Your task to perform on an android device: open app "Cash App" (install if not already installed) and go to login screen Image 0: 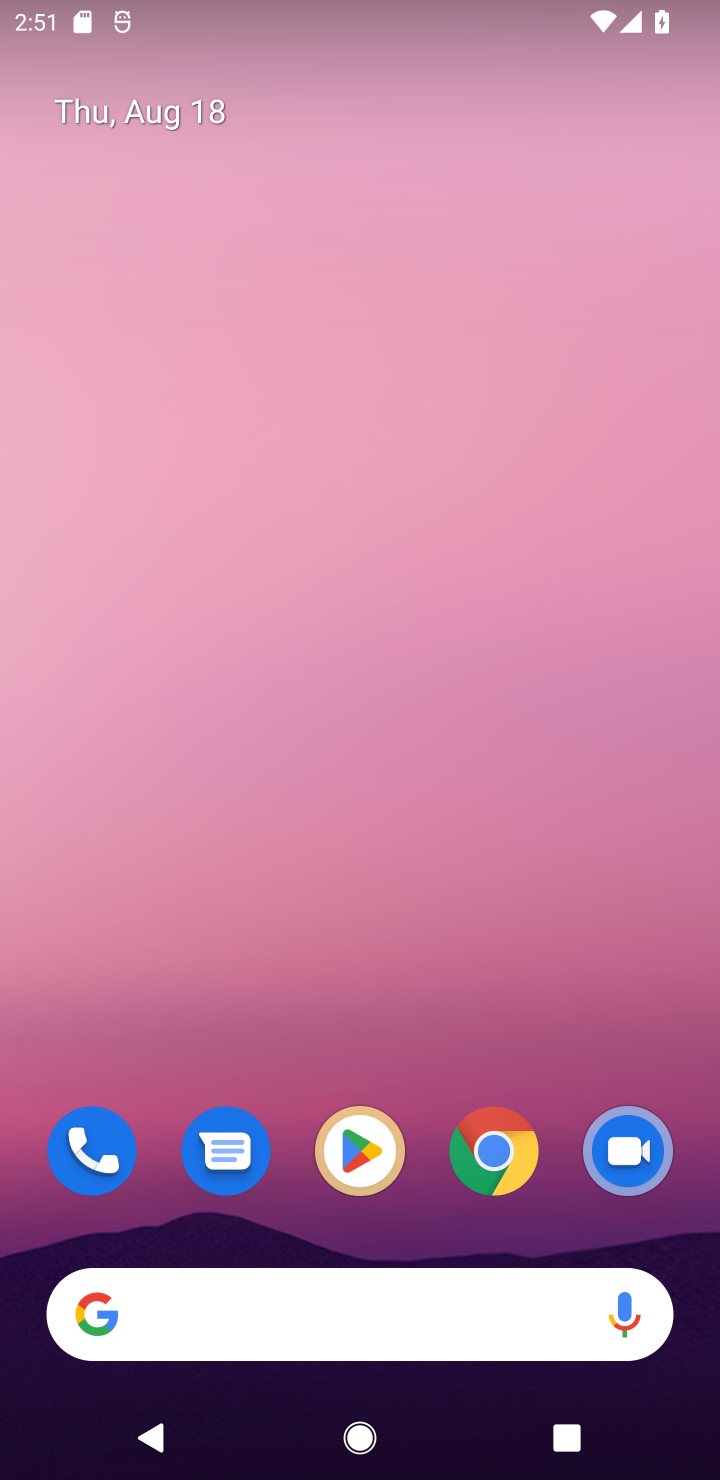
Step 0: click (379, 1156)
Your task to perform on an android device: open app "Cash App" (install if not already installed) and go to login screen Image 1: 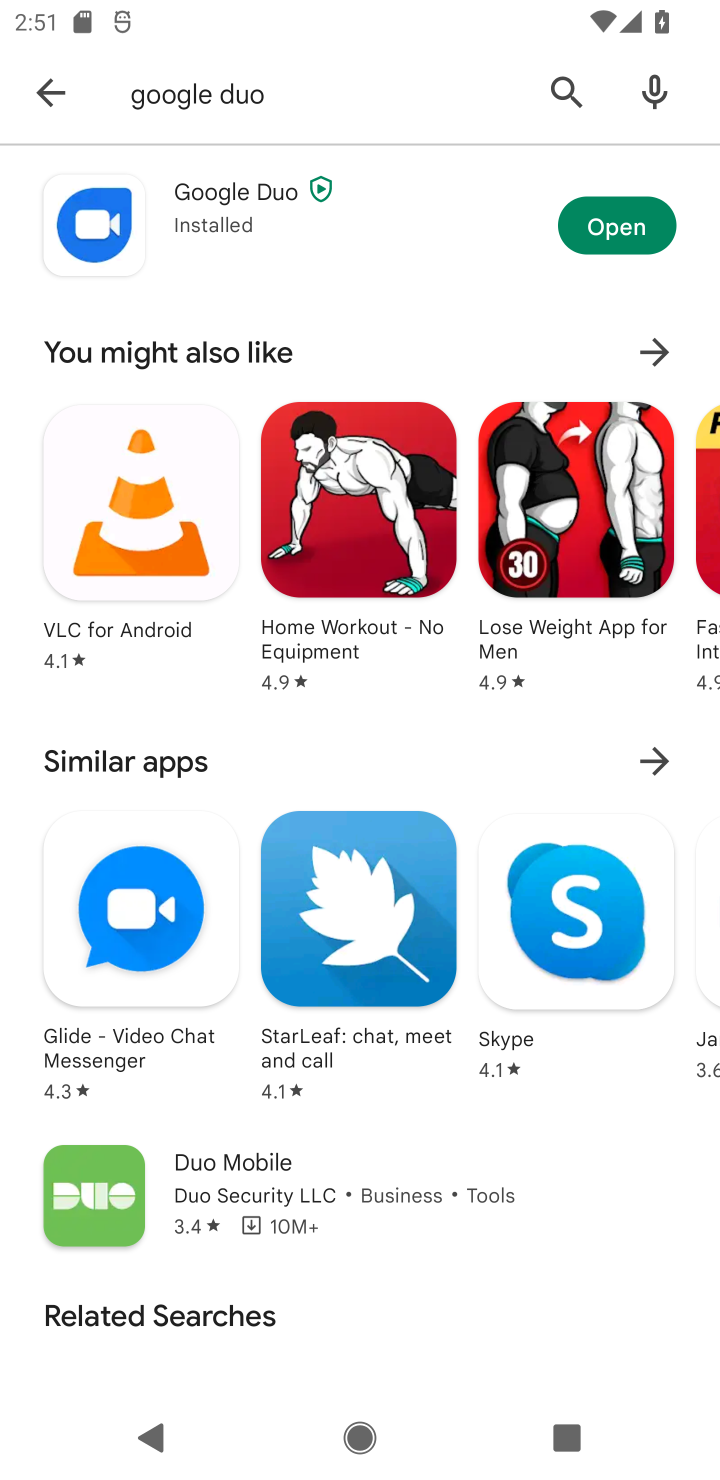
Step 1: click (574, 93)
Your task to perform on an android device: open app "Cash App" (install if not already installed) and go to login screen Image 2: 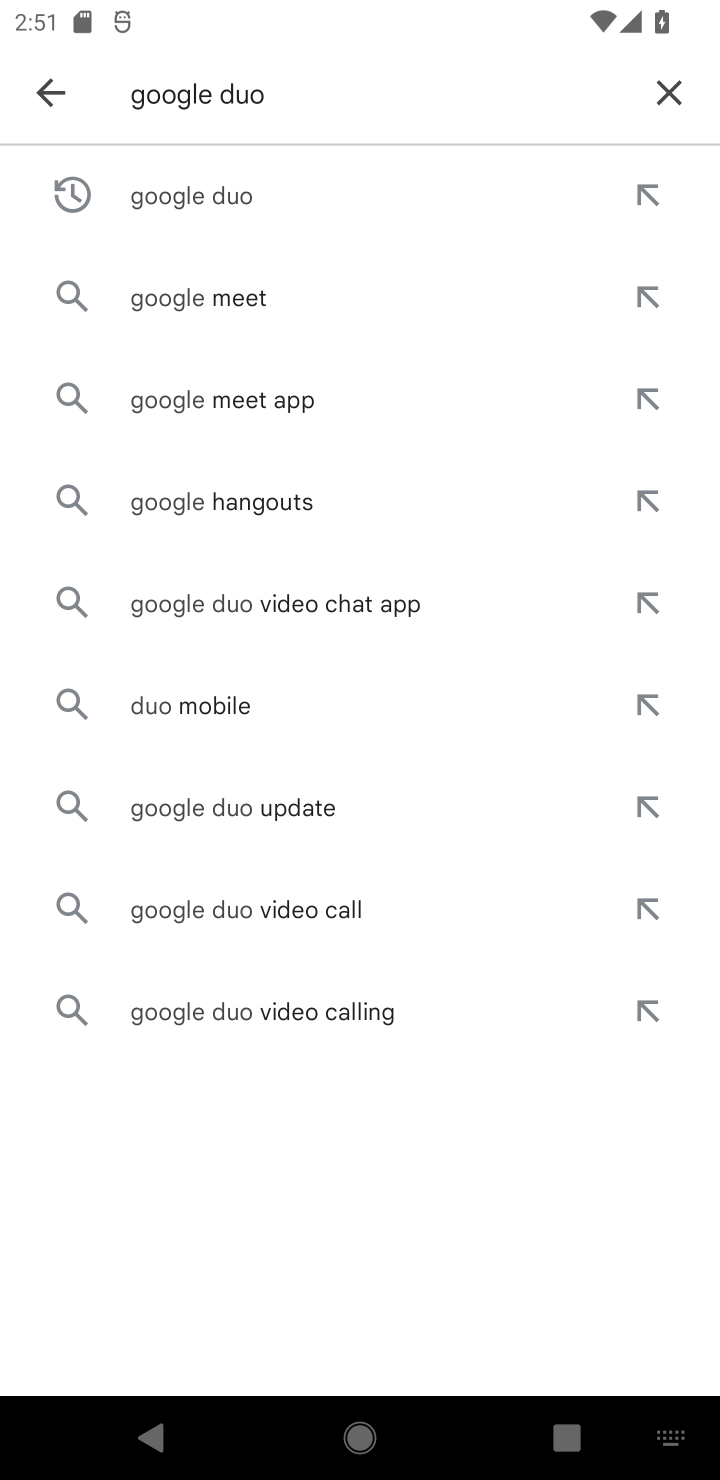
Step 2: click (659, 85)
Your task to perform on an android device: open app "Cash App" (install if not already installed) and go to login screen Image 3: 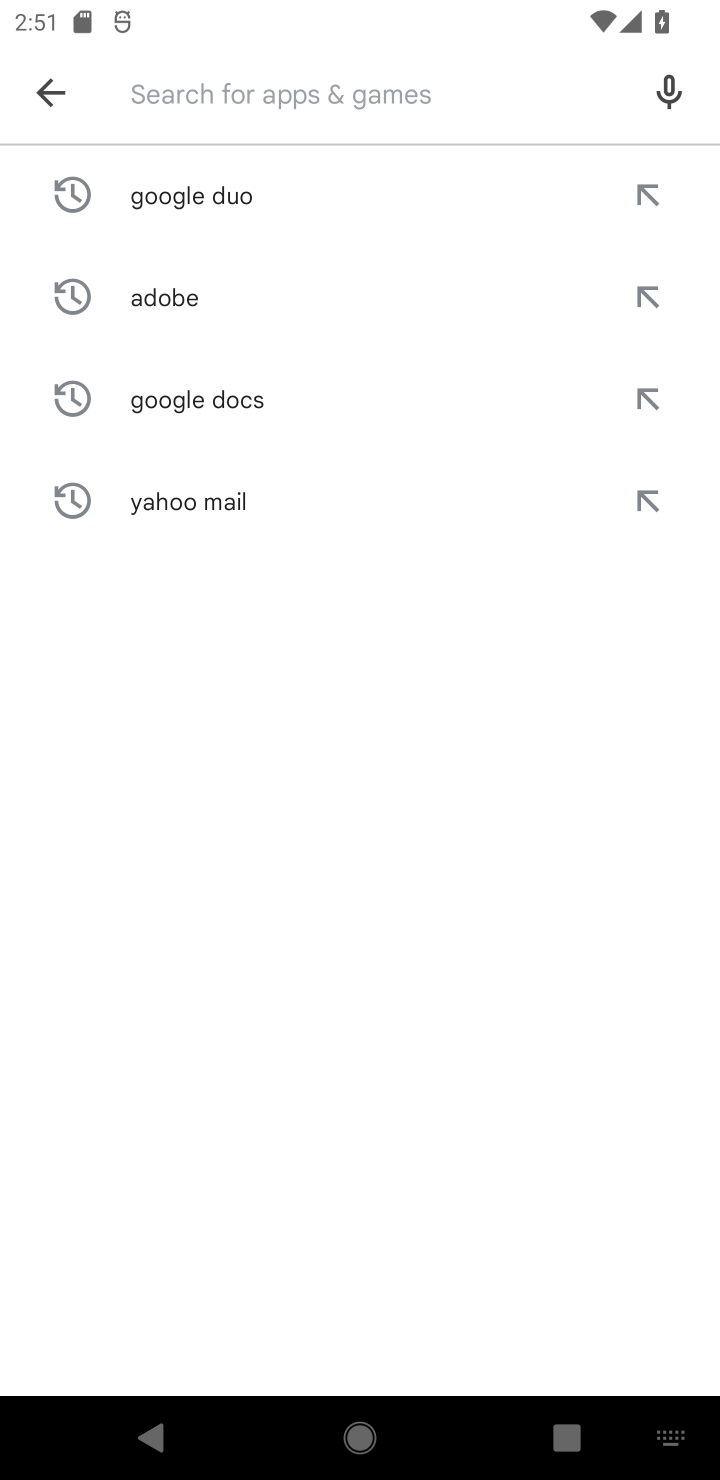
Step 3: type "cash App"
Your task to perform on an android device: open app "Cash App" (install if not already installed) and go to login screen Image 4: 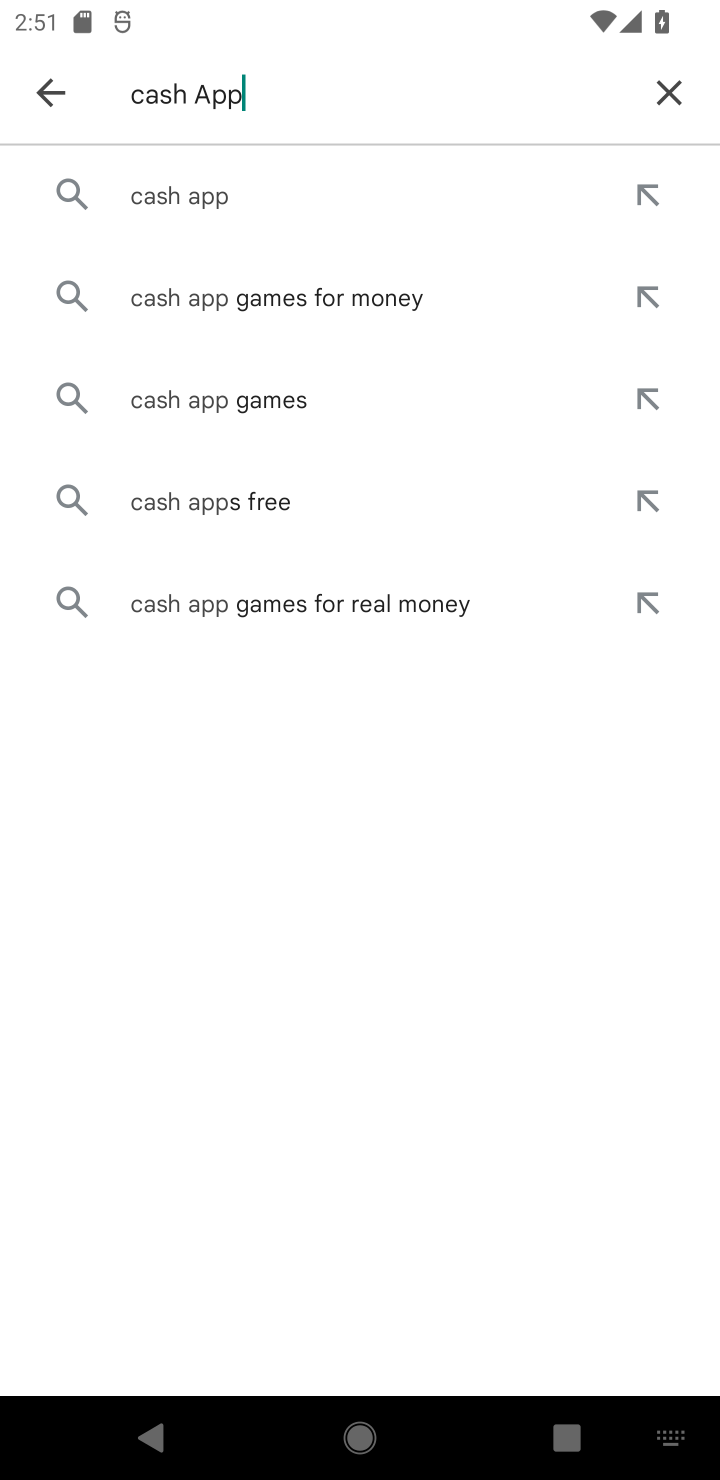
Step 4: click (275, 199)
Your task to perform on an android device: open app "Cash App" (install if not already installed) and go to login screen Image 5: 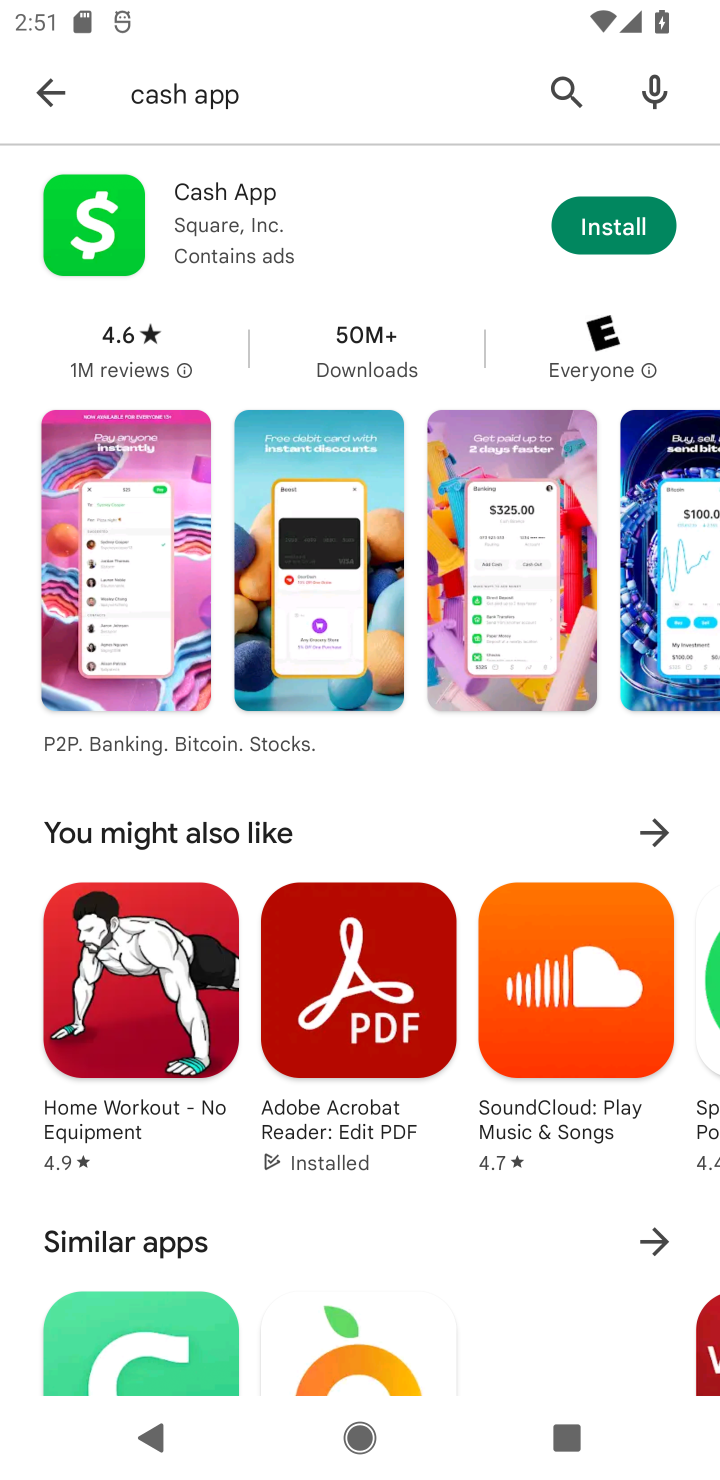
Step 5: click (598, 233)
Your task to perform on an android device: open app "Cash App" (install if not already installed) and go to login screen Image 6: 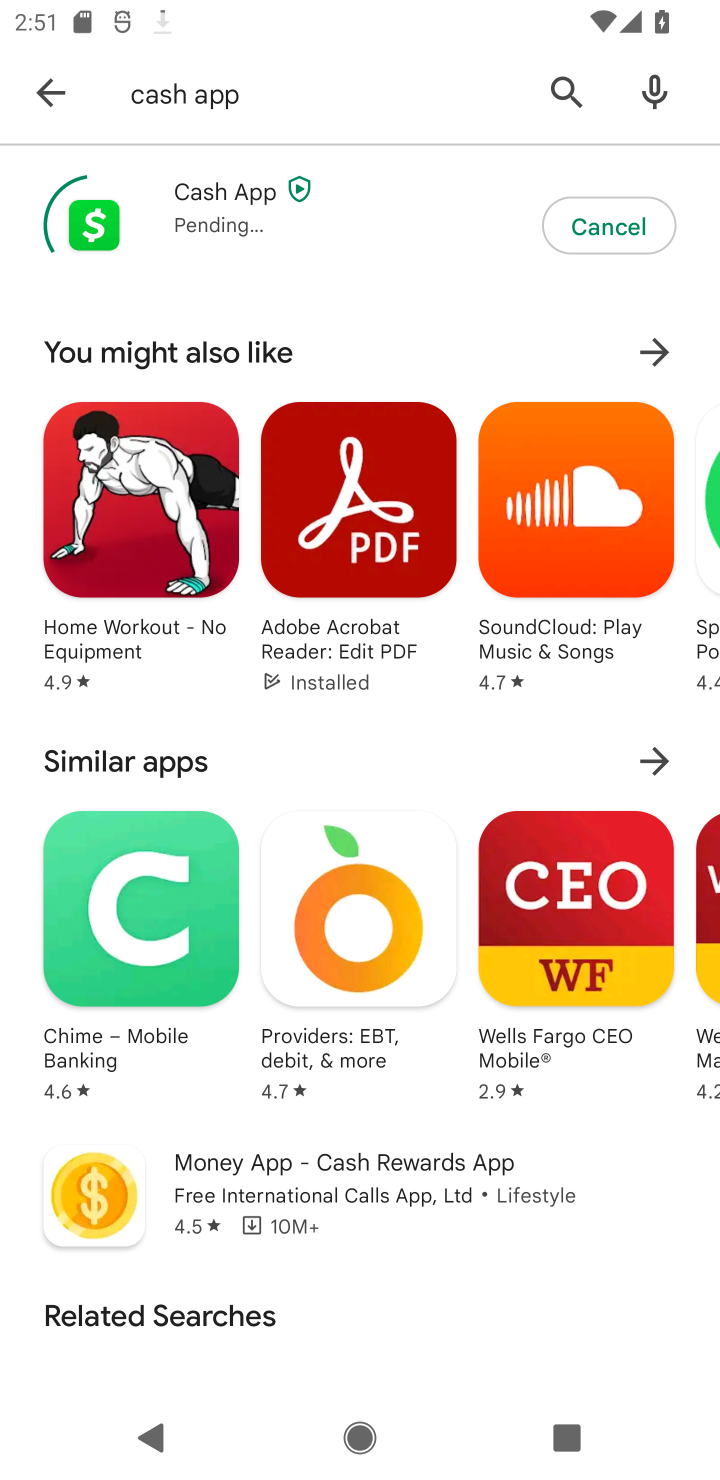
Step 6: task complete